Your task to perform on an android device: Show me the alarms in the clock app Image 0: 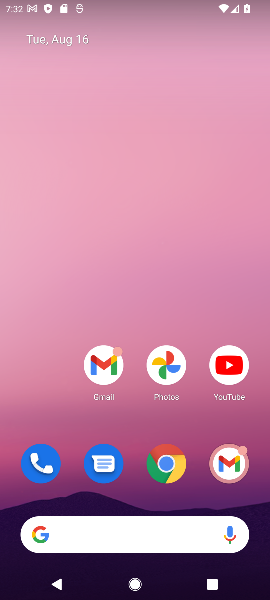
Step 0: drag from (135, 492) to (149, 0)
Your task to perform on an android device: Show me the alarms in the clock app Image 1: 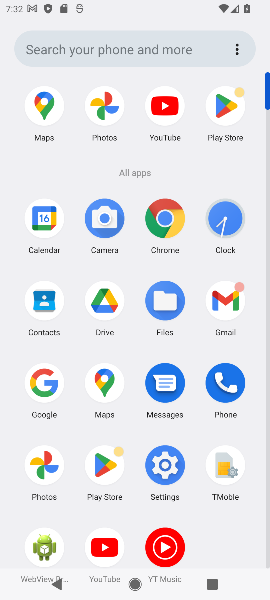
Step 1: click (227, 230)
Your task to perform on an android device: Show me the alarms in the clock app Image 2: 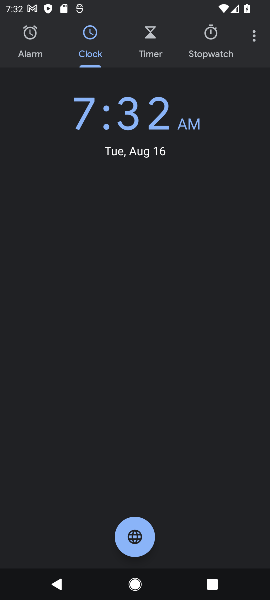
Step 2: click (29, 37)
Your task to perform on an android device: Show me the alarms in the clock app Image 3: 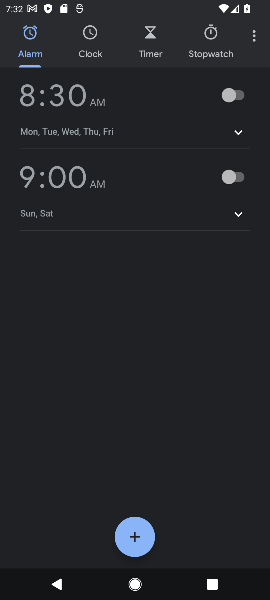
Step 3: task complete